Your task to perform on an android device: move an email to a new category in the gmail app Image 0: 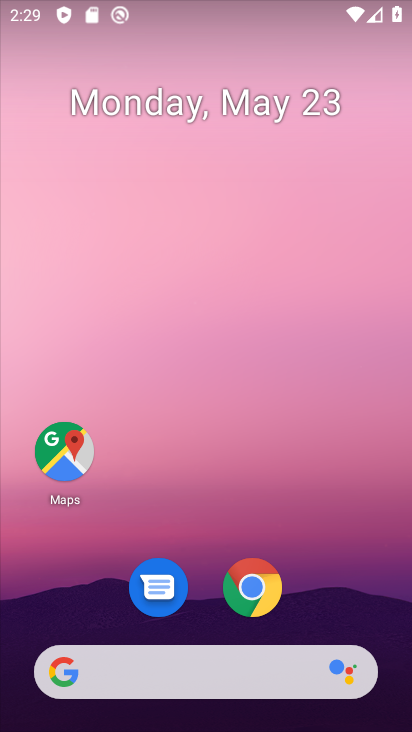
Step 0: drag from (198, 616) to (173, 310)
Your task to perform on an android device: move an email to a new category in the gmail app Image 1: 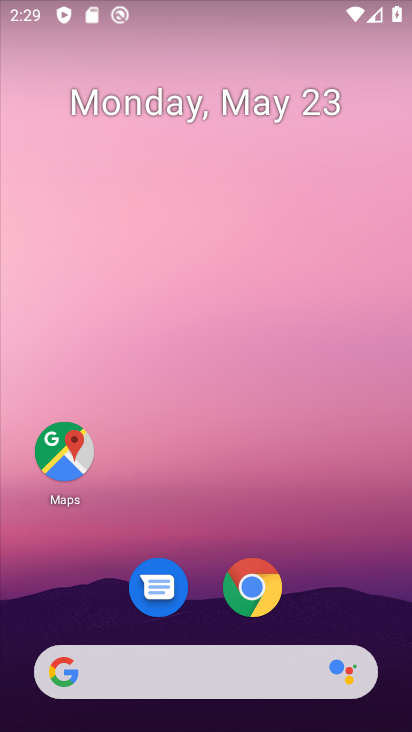
Step 1: drag from (228, 614) to (197, 242)
Your task to perform on an android device: move an email to a new category in the gmail app Image 2: 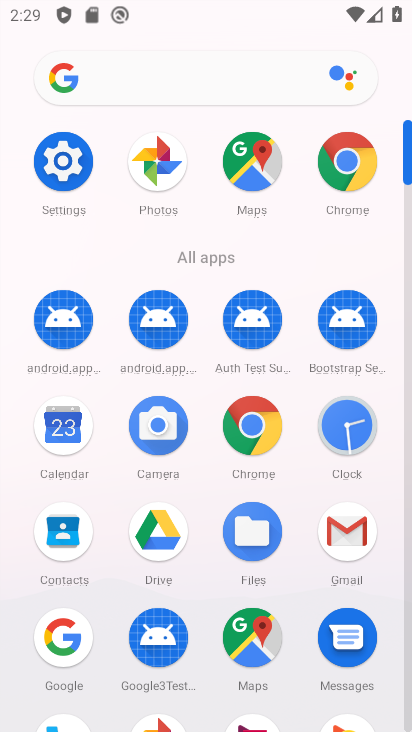
Step 2: click (359, 524)
Your task to perform on an android device: move an email to a new category in the gmail app Image 3: 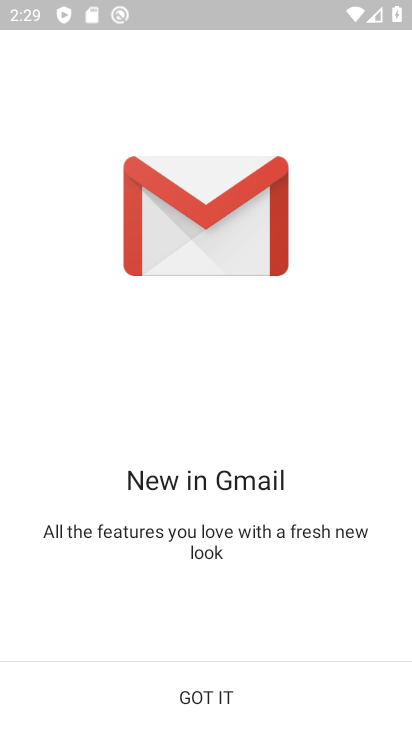
Step 3: click (211, 695)
Your task to perform on an android device: move an email to a new category in the gmail app Image 4: 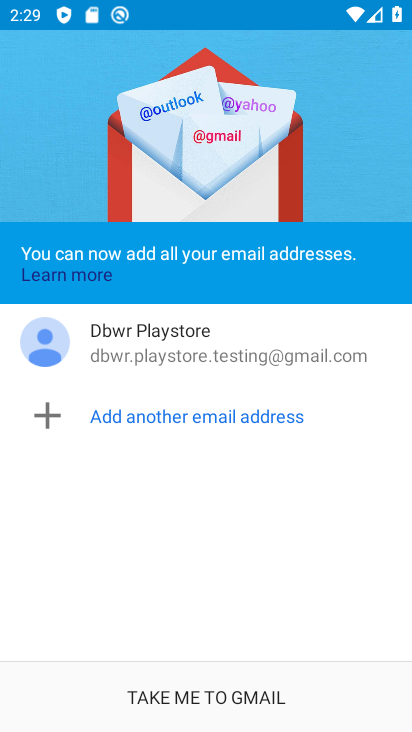
Step 4: click (225, 698)
Your task to perform on an android device: move an email to a new category in the gmail app Image 5: 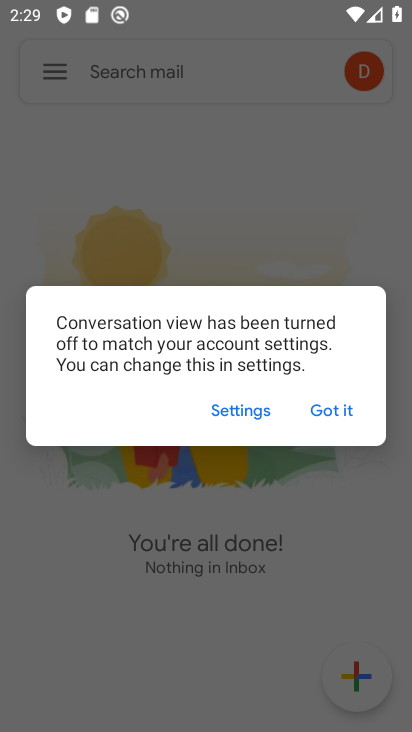
Step 5: click (340, 413)
Your task to perform on an android device: move an email to a new category in the gmail app Image 6: 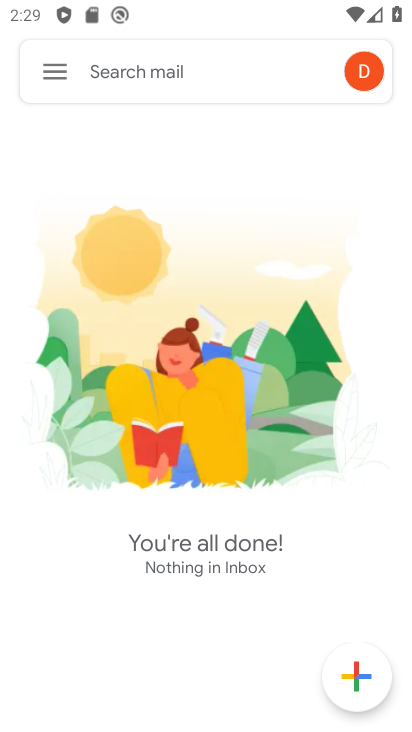
Step 6: click (53, 79)
Your task to perform on an android device: move an email to a new category in the gmail app Image 7: 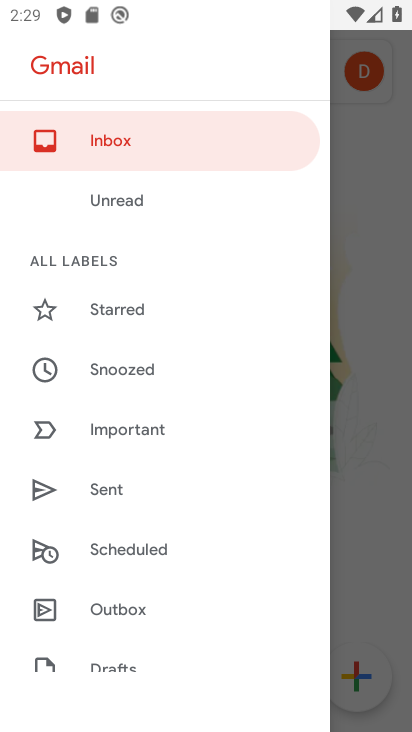
Step 7: drag from (161, 588) to (151, 235)
Your task to perform on an android device: move an email to a new category in the gmail app Image 8: 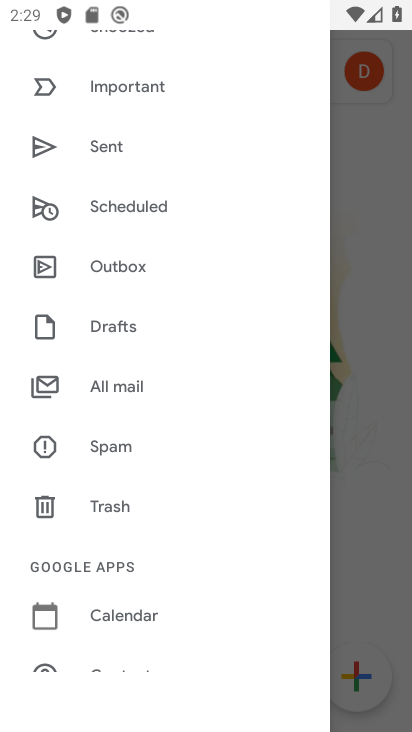
Step 8: click (111, 392)
Your task to perform on an android device: move an email to a new category in the gmail app Image 9: 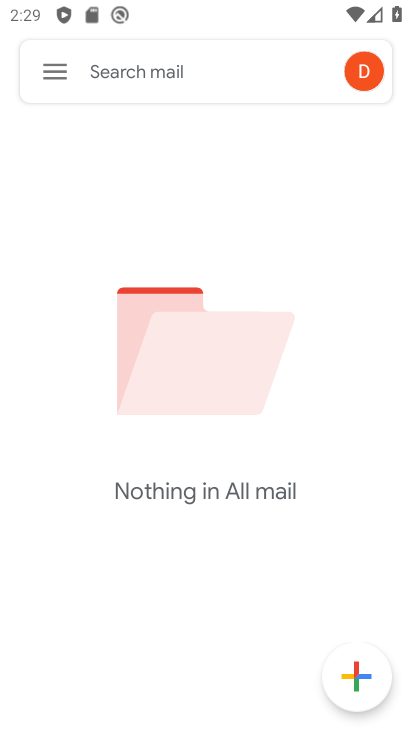
Step 9: task complete